Your task to perform on an android device: Go to Google Image 0: 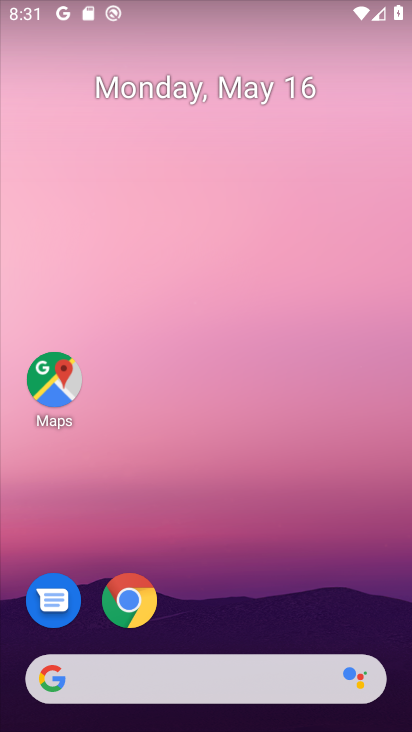
Step 0: drag from (226, 599) to (201, 307)
Your task to perform on an android device: Go to Google Image 1: 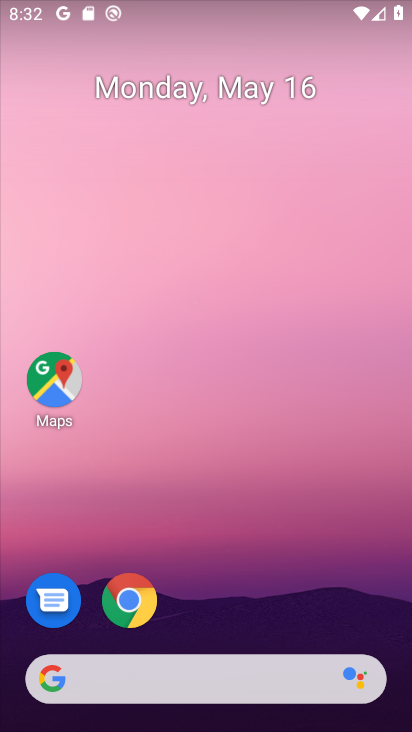
Step 1: drag from (273, 647) to (188, 84)
Your task to perform on an android device: Go to Google Image 2: 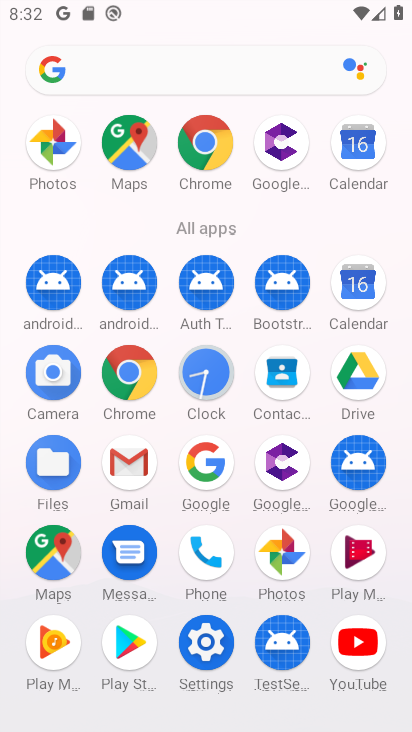
Step 2: click (207, 462)
Your task to perform on an android device: Go to Google Image 3: 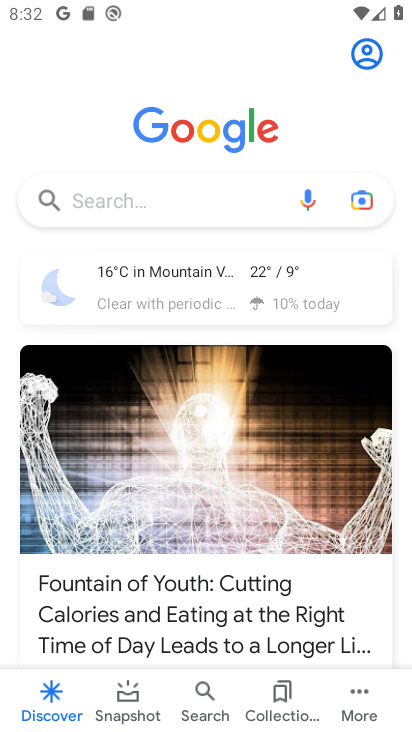
Step 3: task complete